Your task to perform on an android device: Go to sound settings Image 0: 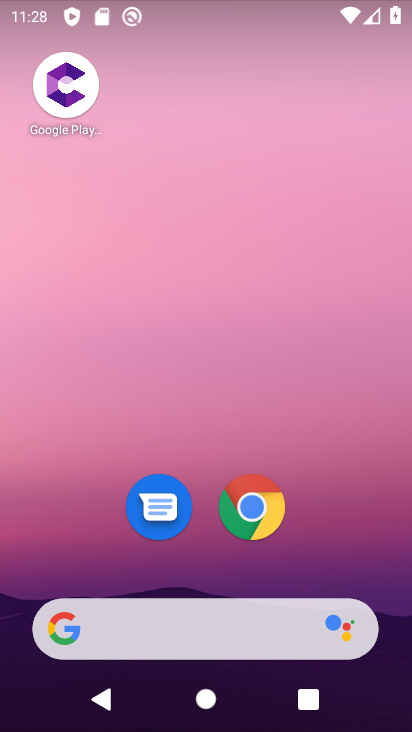
Step 0: drag from (359, 469) to (281, 0)
Your task to perform on an android device: Go to sound settings Image 1: 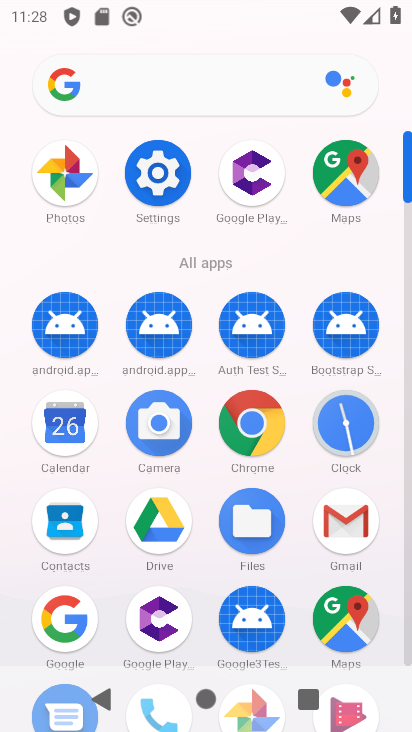
Step 1: click (162, 171)
Your task to perform on an android device: Go to sound settings Image 2: 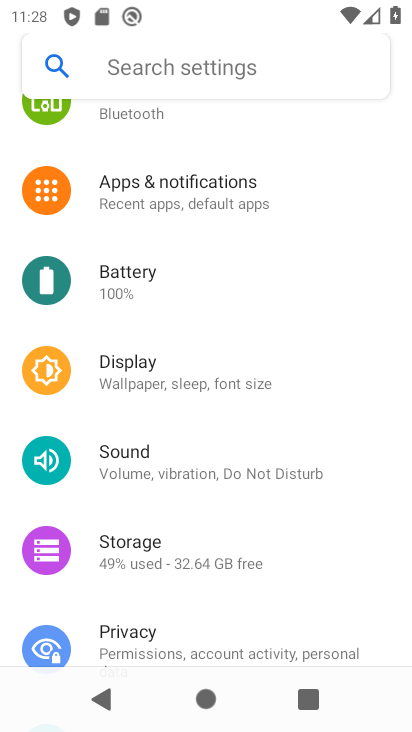
Step 2: click (177, 450)
Your task to perform on an android device: Go to sound settings Image 3: 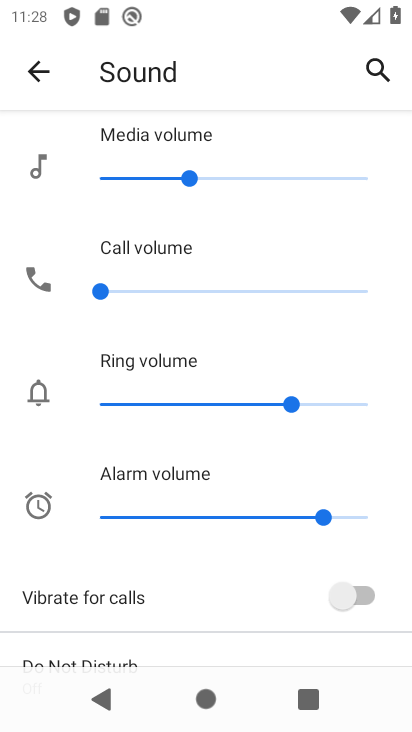
Step 3: task complete